Your task to perform on an android device: Open Google Image 0: 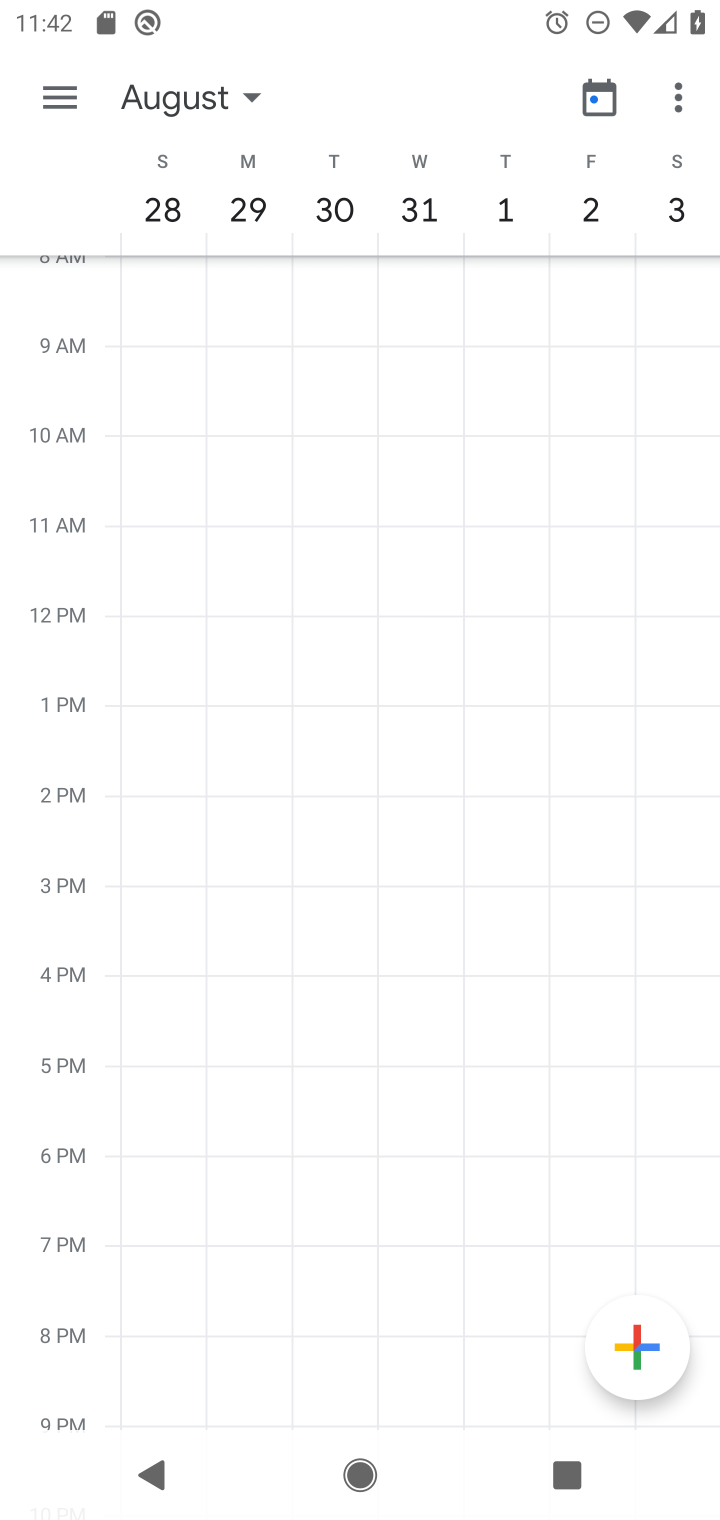
Step 0: press home button
Your task to perform on an android device: Open Google Image 1: 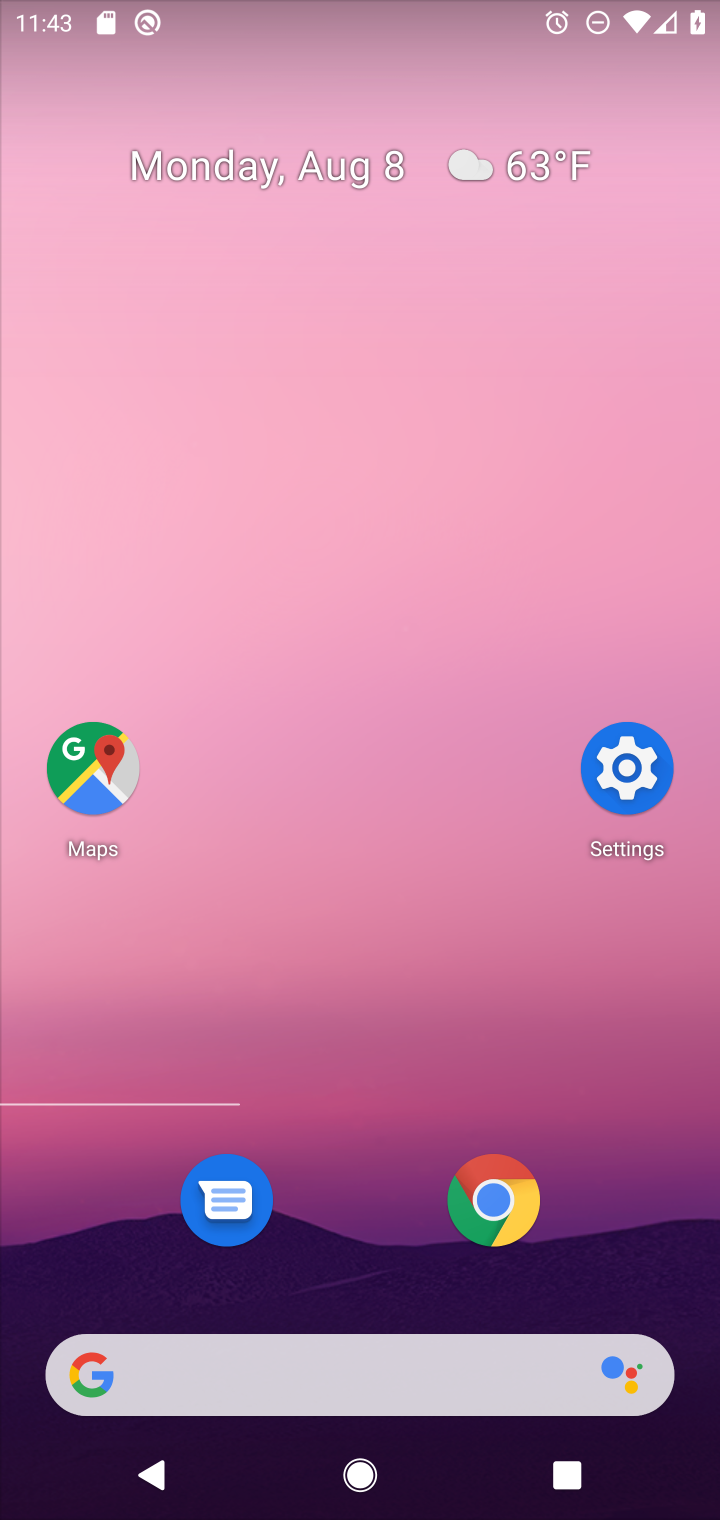
Step 1: drag from (341, 1201) to (602, 117)
Your task to perform on an android device: Open Google Image 2: 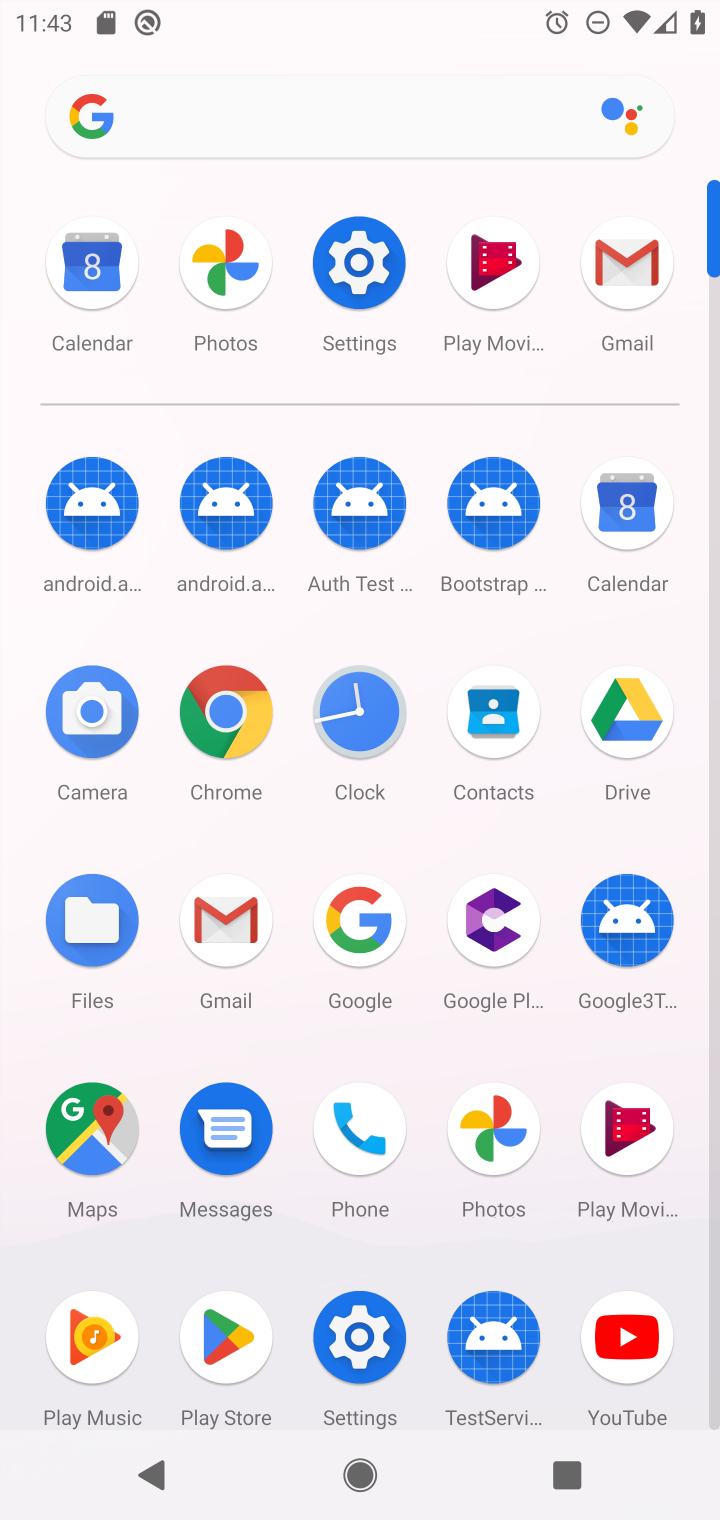
Step 2: click (365, 937)
Your task to perform on an android device: Open Google Image 3: 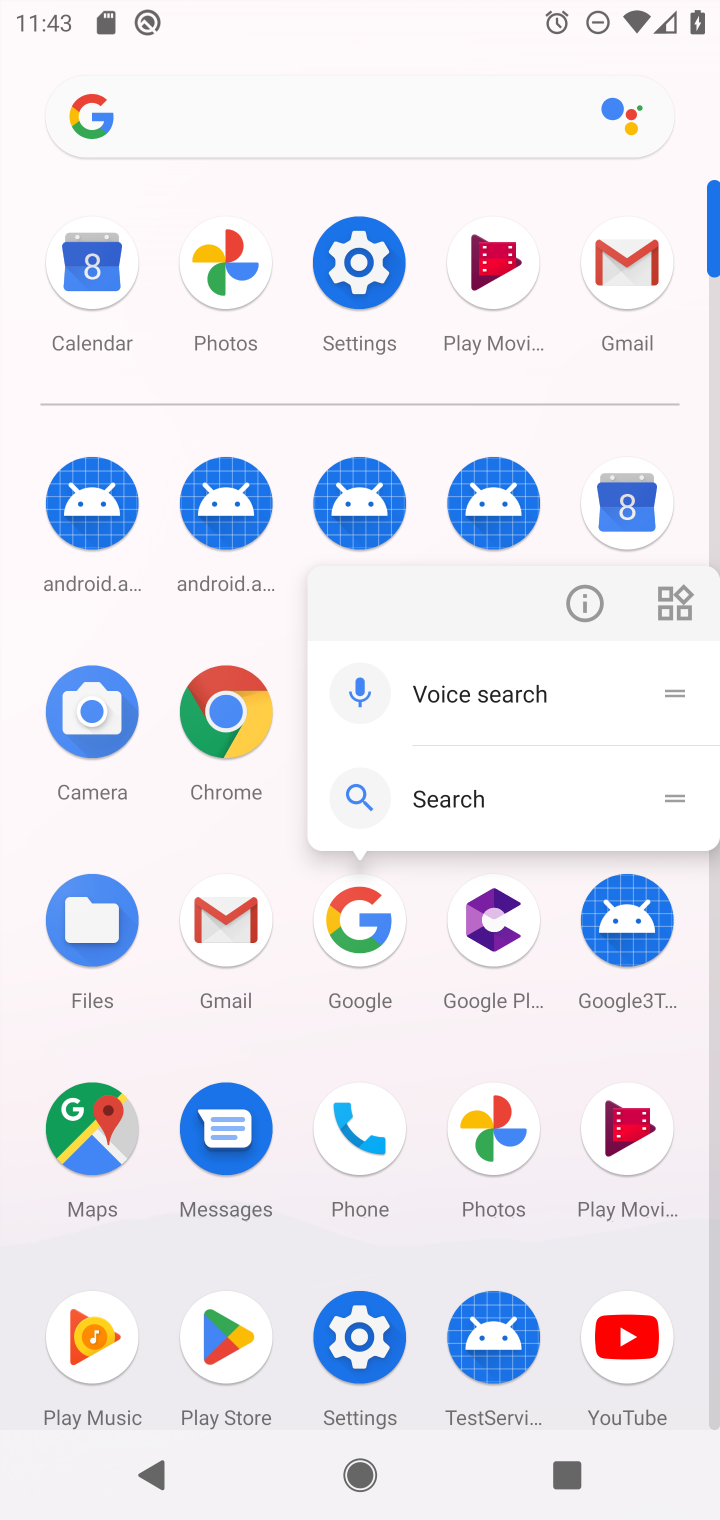
Step 3: click (365, 937)
Your task to perform on an android device: Open Google Image 4: 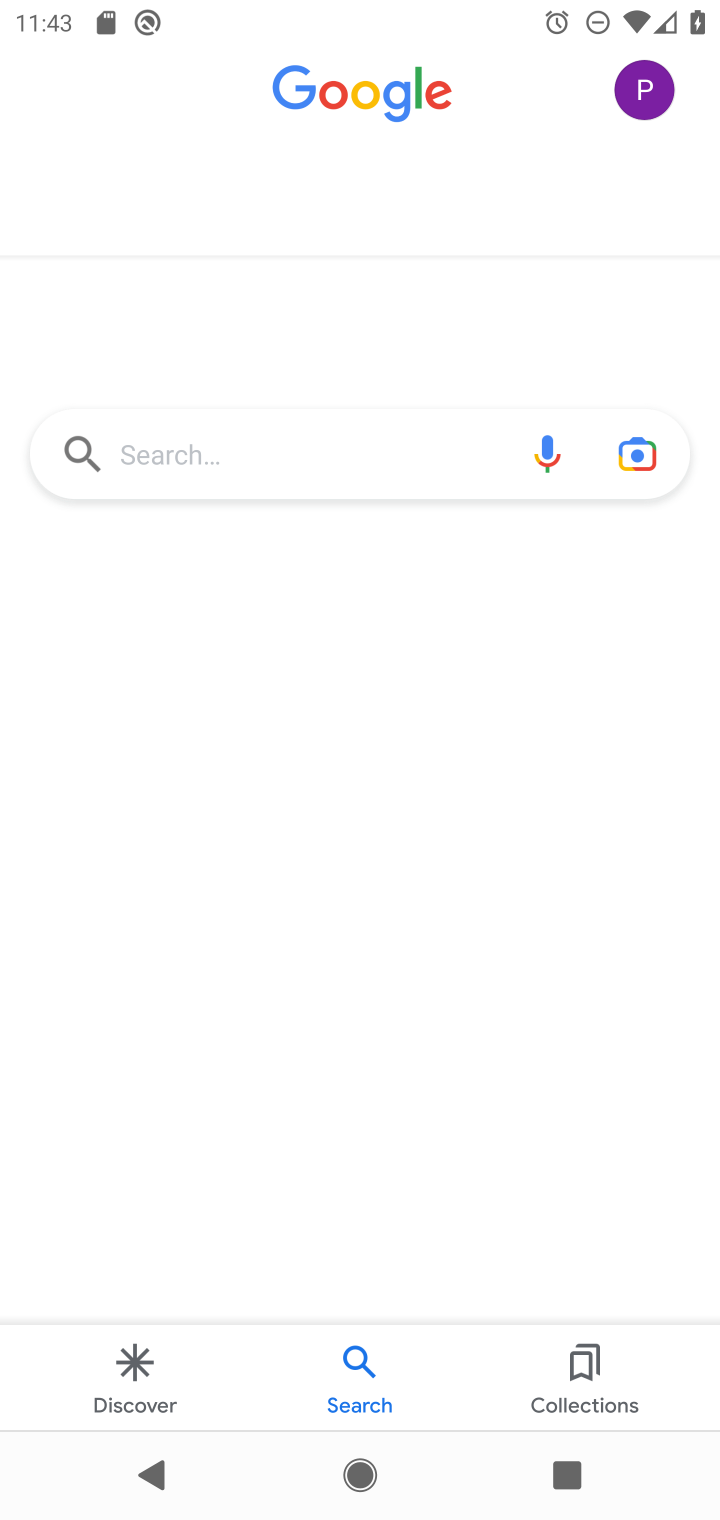
Step 4: task complete